Your task to perform on an android device: toggle translation in the chrome app Image 0: 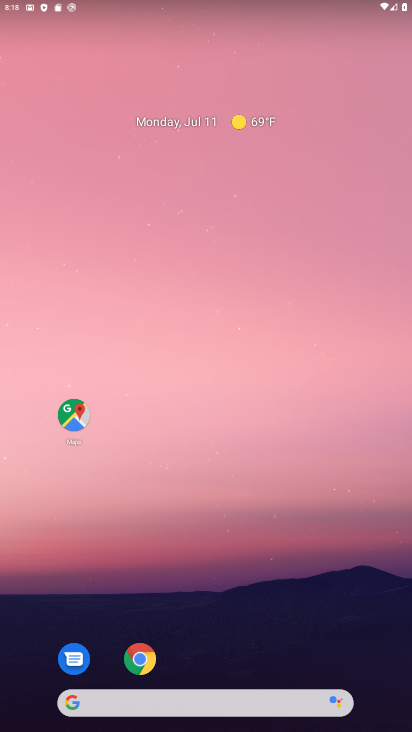
Step 0: click (154, 666)
Your task to perform on an android device: toggle translation in the chrome app Image 1: 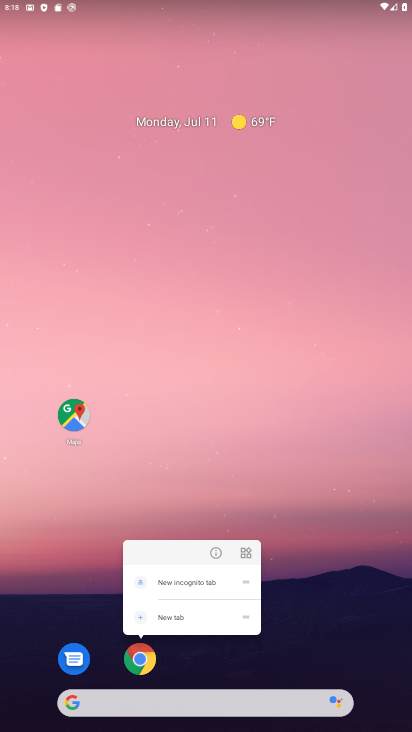
Step 1: click (147, 668)
Your task to perform on an android device: toggle translation in the chrome app Image 2: 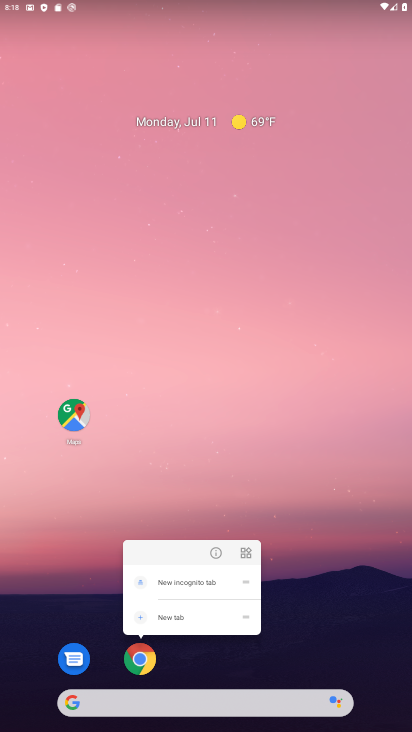
Step 2: click (146, 668)
Your task to perform on an android device: toggle translation in the chrome app Image 3: 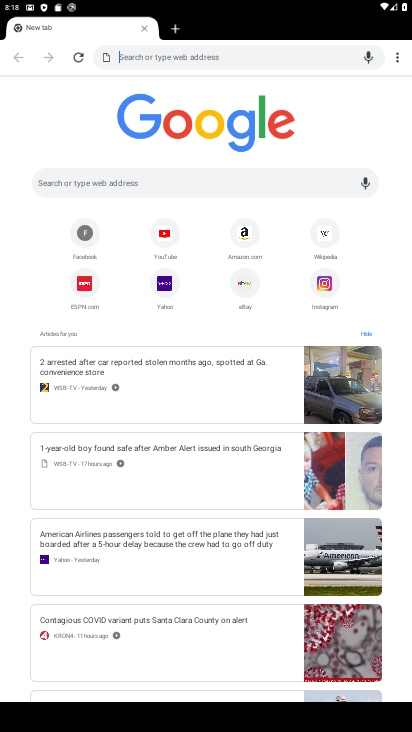
Step 3: drag from (391, 57) to (356, 267)
Your task to perform on an android device: toggle translation in the chrome app Image 4: 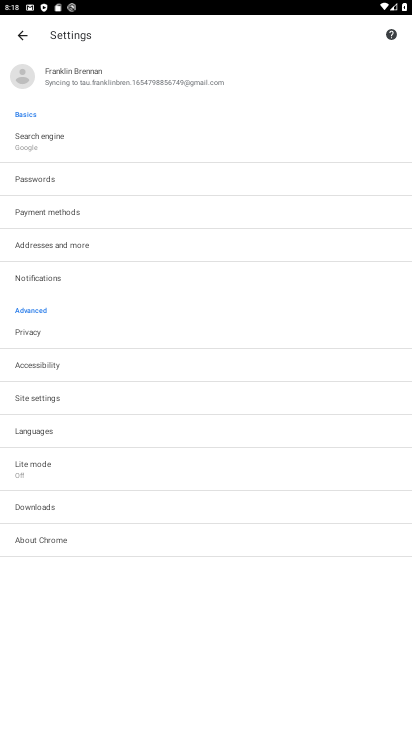
Step 4: click (61, 438)
Your task to perform on an android device: toggle translation in the chrome app Image 5: 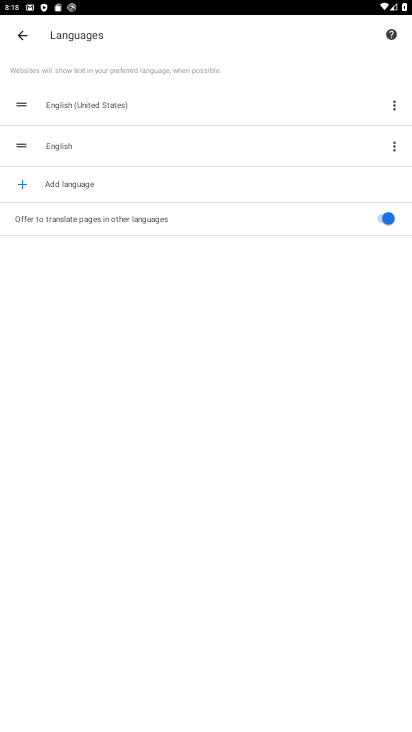
Step 5: click (378, 217)
Your task to perform on an android device: toggle translation in the chrome app Image 6: 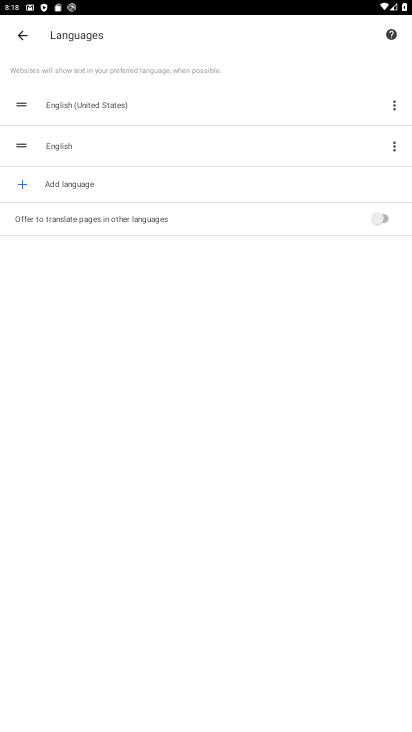
Step 6: task complete